Your task to perform on an android device: Open my contact list Image 0: 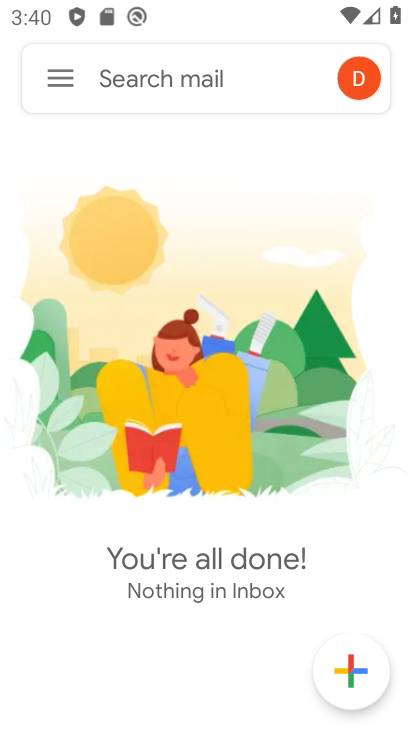
Step 0: press home button
Your task to perform on an android device: Open my contact list Image 1: 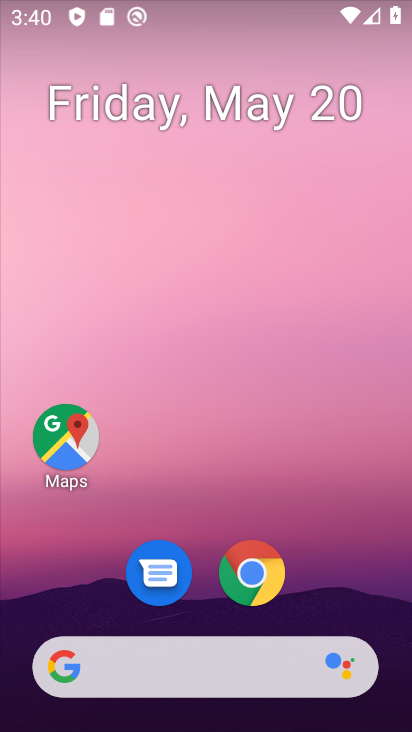
Step 1: drag from (399, 594) to (378, 148)
Your task to perform on an android device: Open my contact list Image 2: 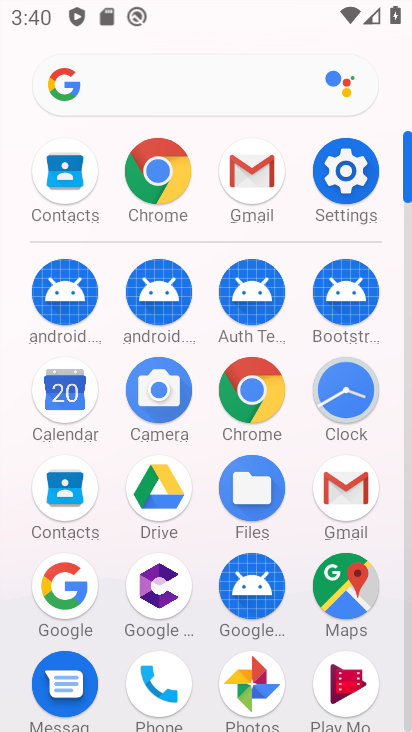
Step 2: click (62, 502)
Your task to perform on an android device: Open my contact list Image 3: 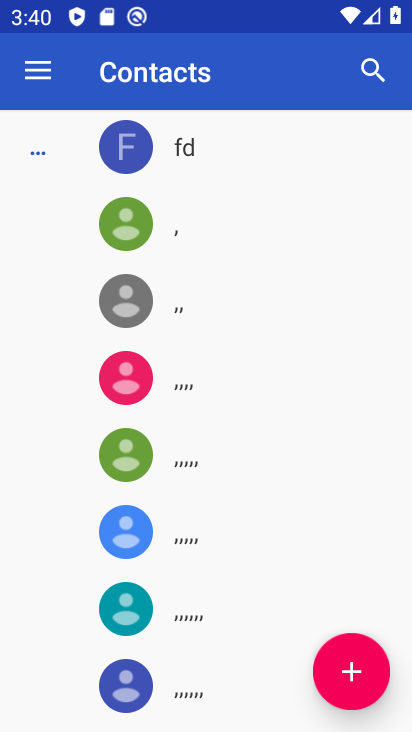
Step 3: task complete